Your task to perform on an android device: toggle improve location accuracy Image 0: 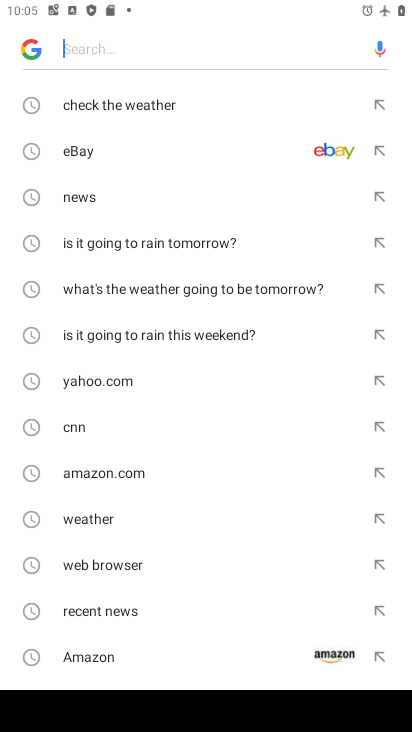
Step 0: press home button
Your task to perform on an android device: toggle improve location accuracy Image 1: 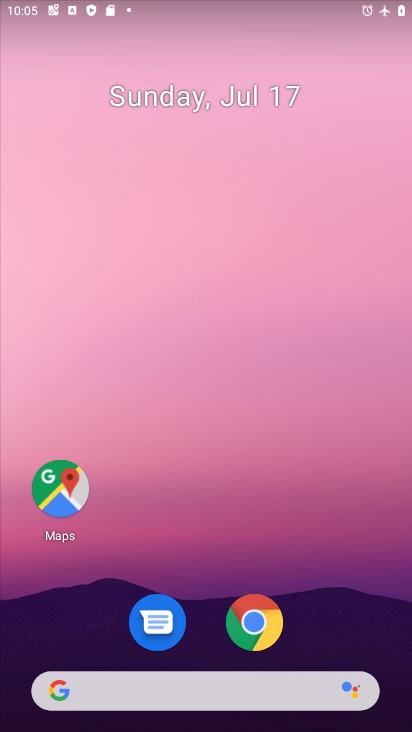
Step 1: drag from (275, 564) to (278, 37)
Your task to perform on an android device: toggle improve location accuracy Image 2: 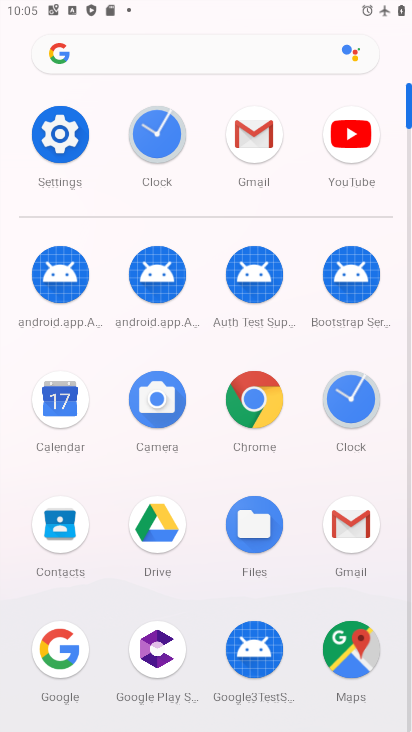
Step 2: click (57, 154)
Your task to perform on an android device: toggle improve location accuracy Image 3: 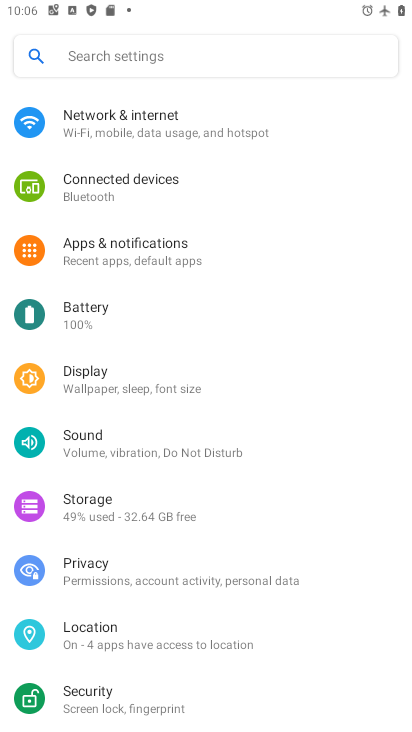
Step 3: click (122, 644)
Your task to perform on an android device: toggle improve location accuracy Image 4: 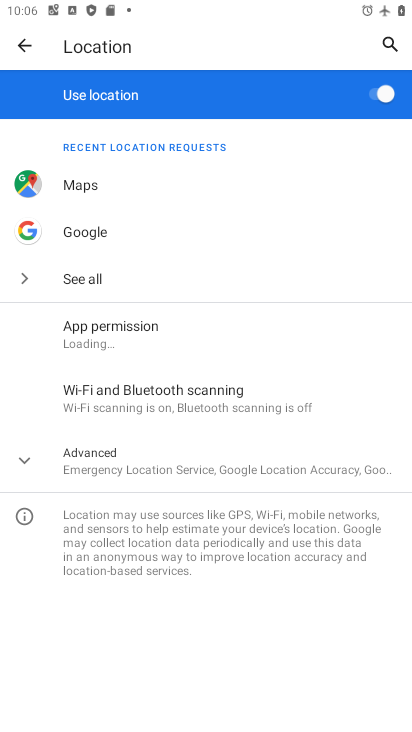
Step 4: click (234, 466)
Your task to perform on an android device: toggle improve location accuracy Image 5: 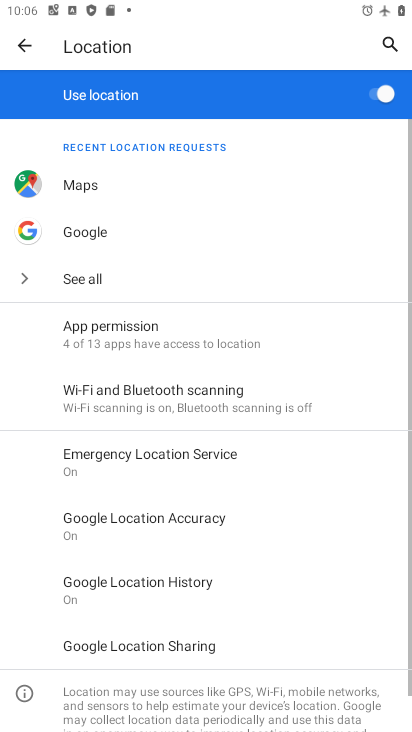
Step 5: click (214, 520)
Your task to perform on an android device: toggle improve location accuracy Image 6: 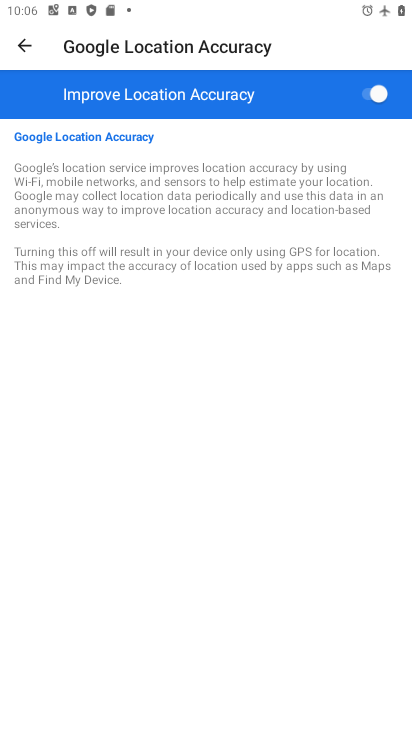
Step 6: click (363, 82)
Your task to perform on an android device: toggle improve location accuracy Image 7: 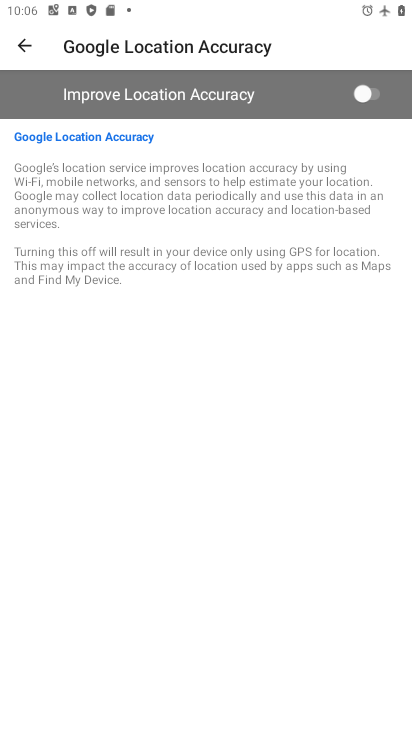
Step 7: task complete